Your task to perform on an android device: uninstall "Facebook" Image 0: 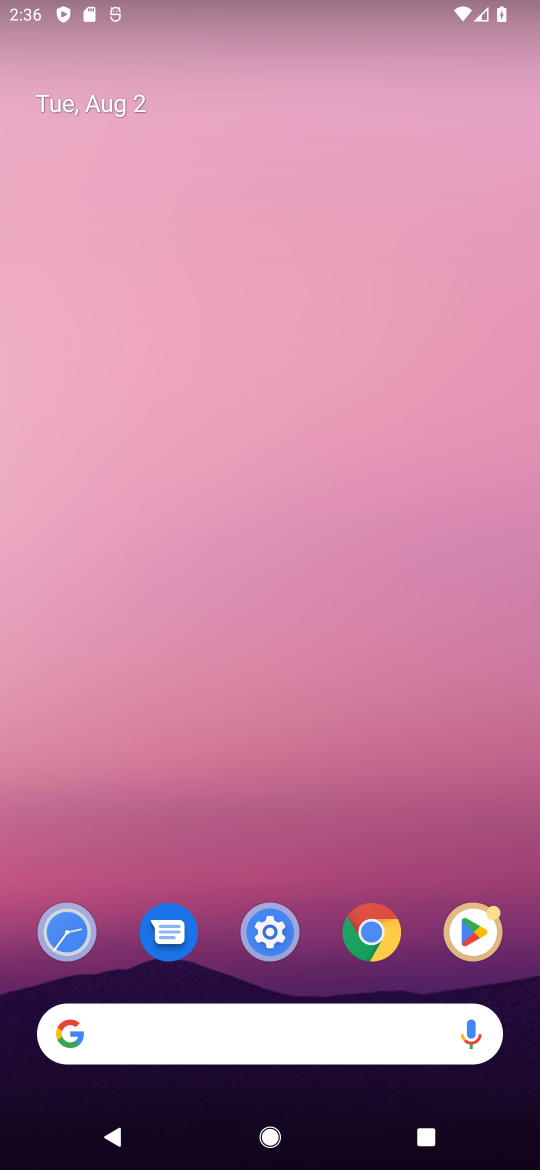
Step 0: drag from (327, 971) to (491, 131)
Your task to perform on an android device: uninstall "Facebook" Image 1: 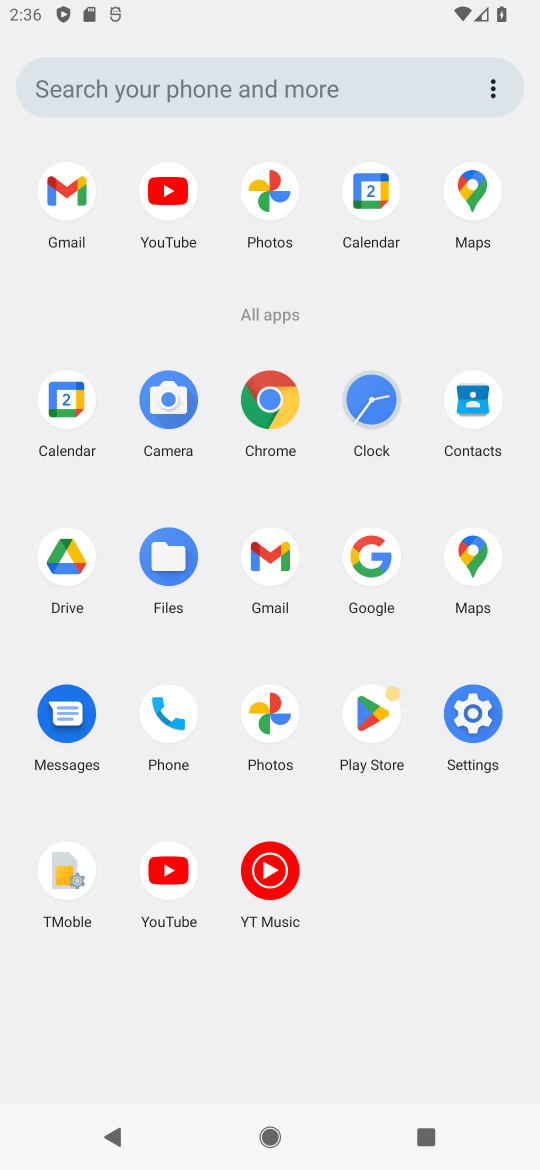
Step 1: click (359, 714)
Your task to perform on an android device: uninstall "Facebook" Image 2: 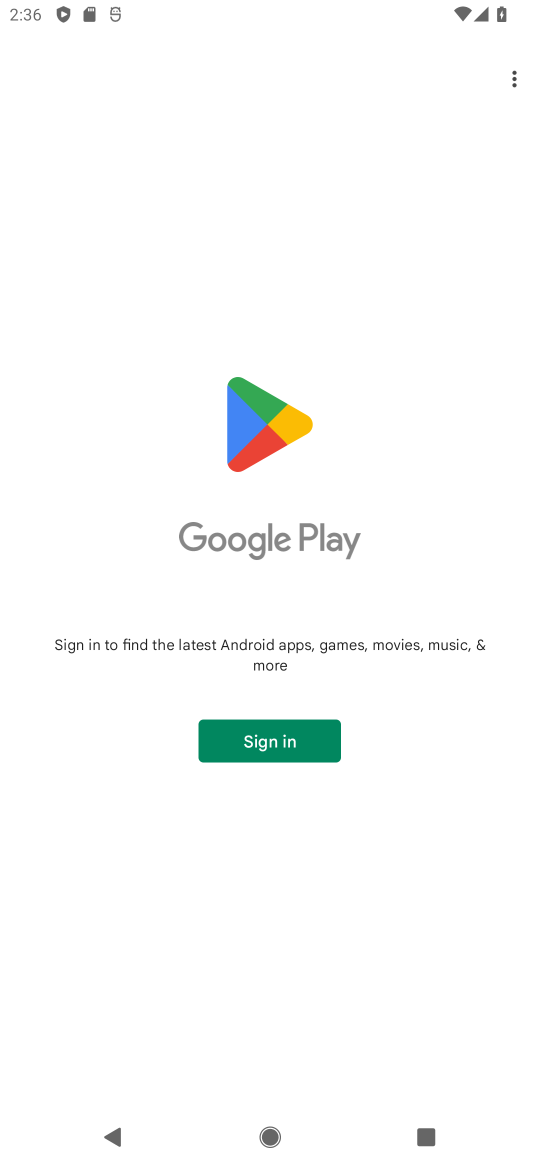
Step 2: task complete